Your task to perform on an android device: What's on my calendar tomorrow? Image 0: 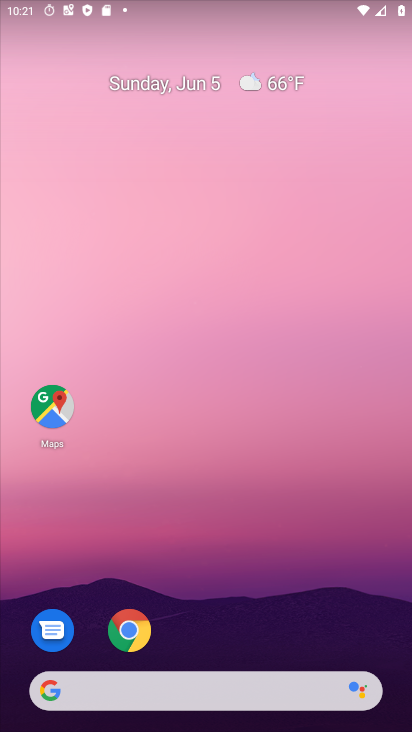
Step 0: drag from (236, 726) to (217, 80)
Your task to perform on an android device: What's on my calendar tomorrow? Image 1: 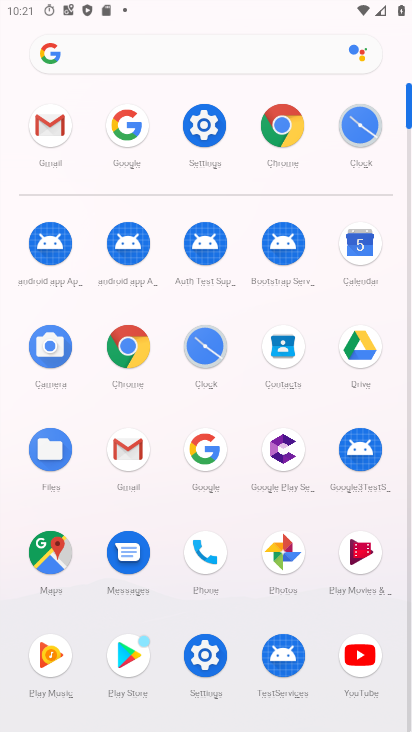
Step 1: click (366, 245)
Your task to perform on an android device: What's on my calendar tomorrow? Image 2: 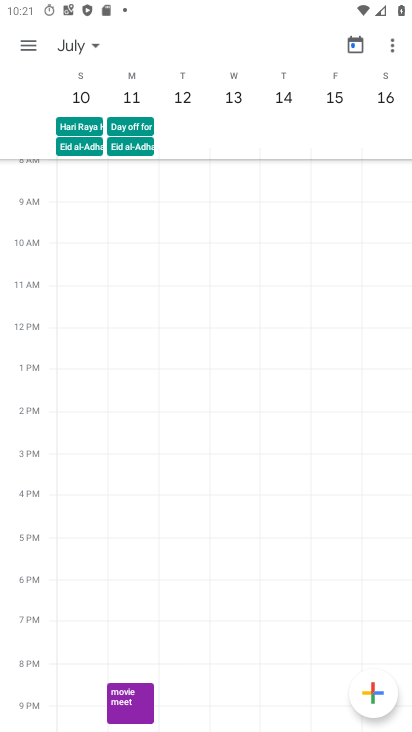
Step 2: click (366, 245)
Your task to perform on an android device: What's on my calendar tomorrow? Image 3: 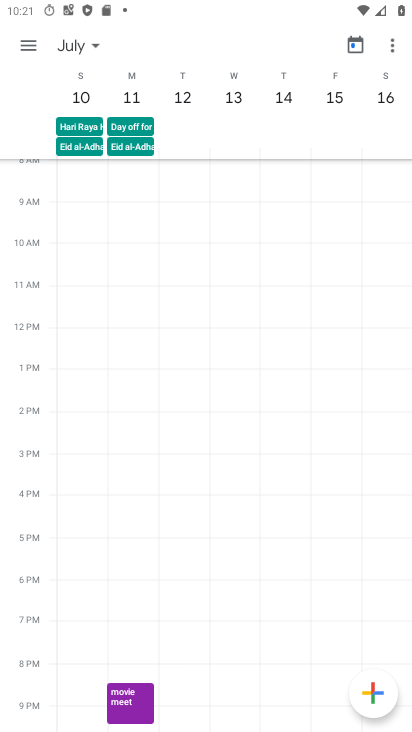
Step 3: click (90, 41)
Your task to perform on an android device: What's on my calendar tomorrow? Image 4: 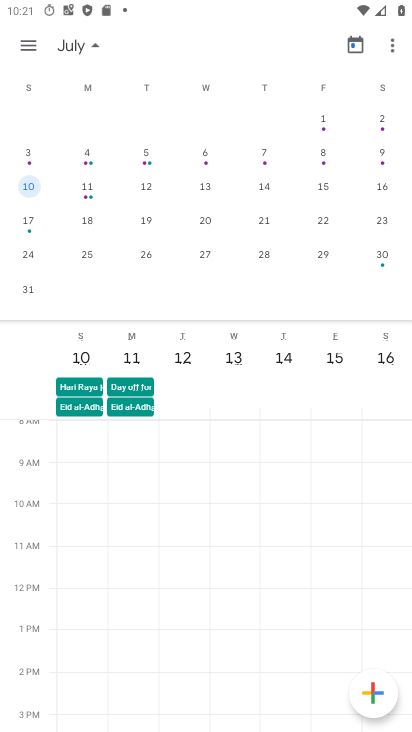
Step 4: drag from (25, 207) to (324, 177)
Your task to perform on an android device: What's on my calendar tomorrow? Image 5: 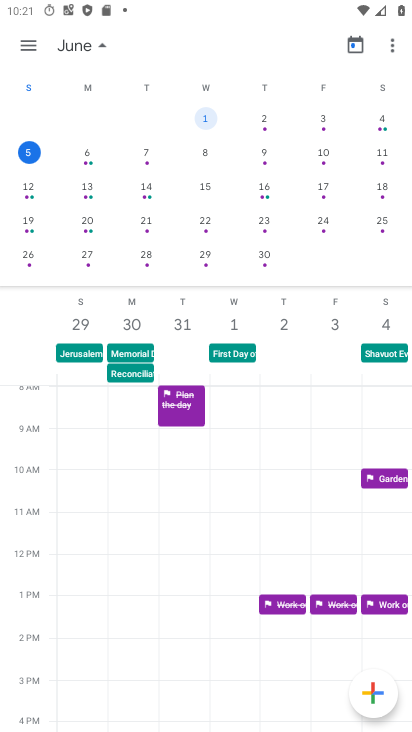
Step 5: click (86, 148)
Your task to perform on an android device: What's on my calendar tomorrow? Image 6: 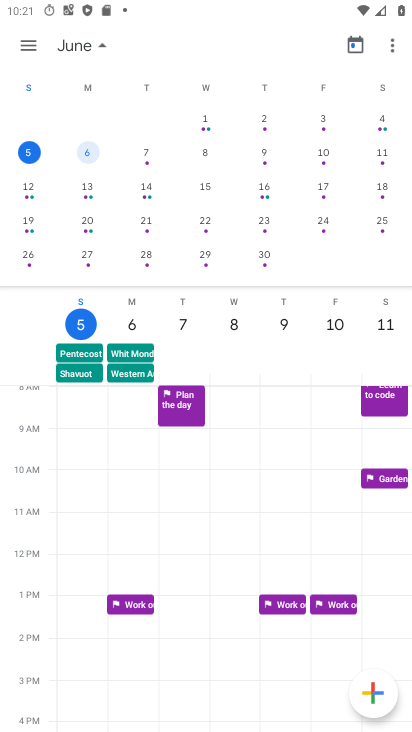
Step 6: click (86, 148)
Your task to perform on an android device: What's on my calendar tomorrow? Image 7: 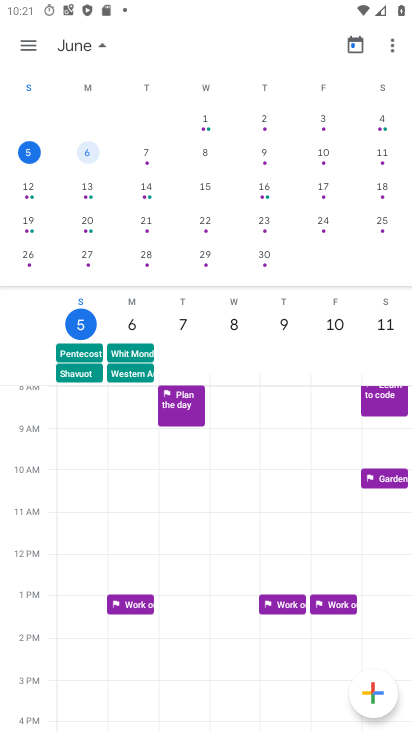
Step 7: click (86, 148)
Your task to perform on an android device: What's on my calendar tomorrow? Image 8: 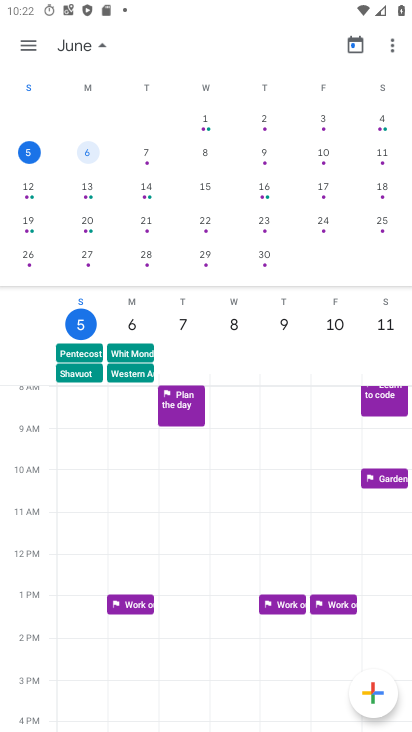
Step 8: click (86, 148)
Your task to perform on an android device: What's on my calendar tomorrow? Image 9: 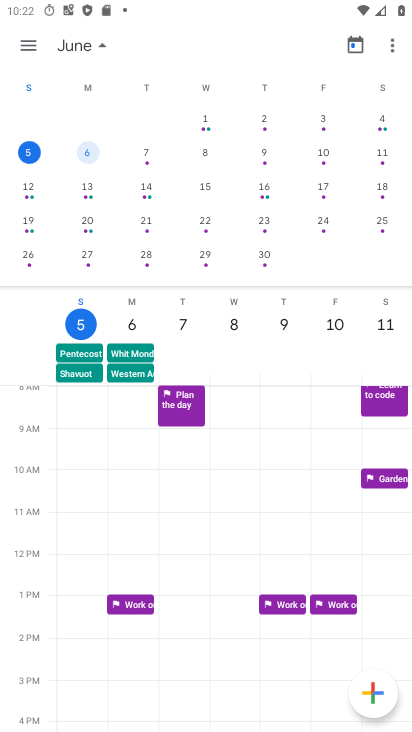
Step 9: click (86, 148)
Your task to perform on an android device: What's on my calendar tomorrow? Image 10: 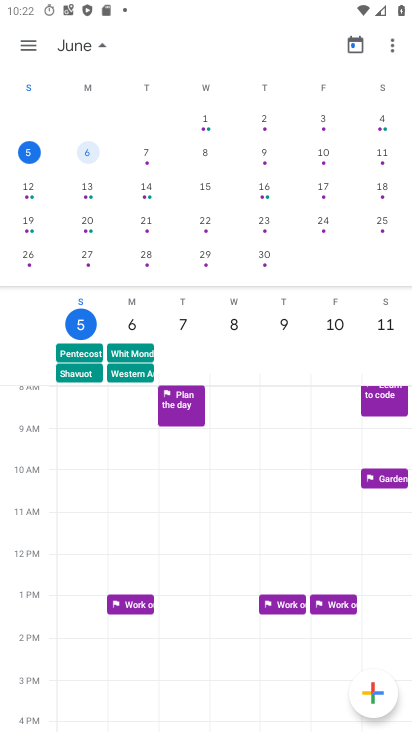
Step 10: click (133, 310)
Your task to perform on an android device: What's on my calendar tomorrow? Image 11: 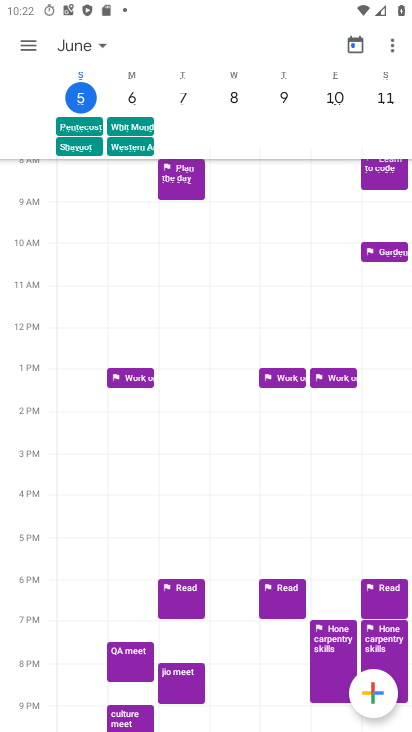
Step 11: click (134, 90)
Your task to perform on an android device: What's on my calendar tomorrow? Image 12: 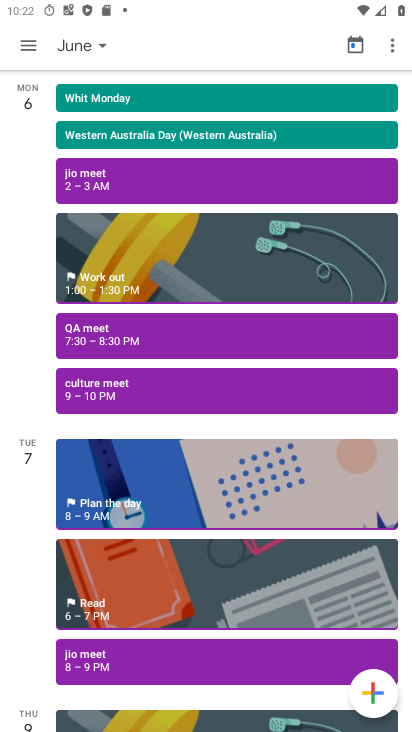
Step 12: task complete